Your task to perform on an android device: toggle improve location accuracy Image 0: 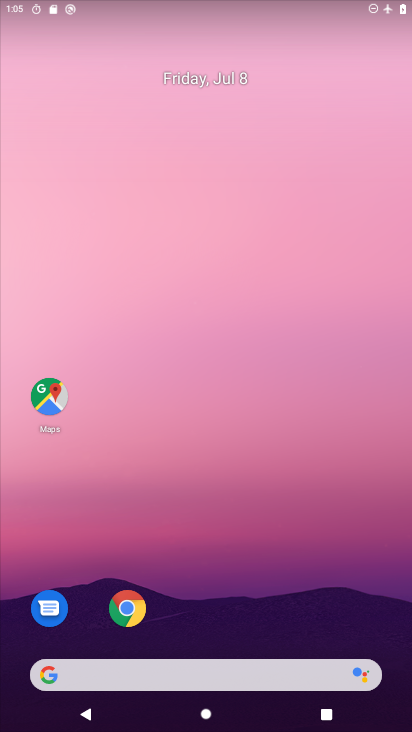
Step 0: drag from (240, 680) to (234, 60)
Your task to perform on an android device: toggle improve location accuracy Image 1: 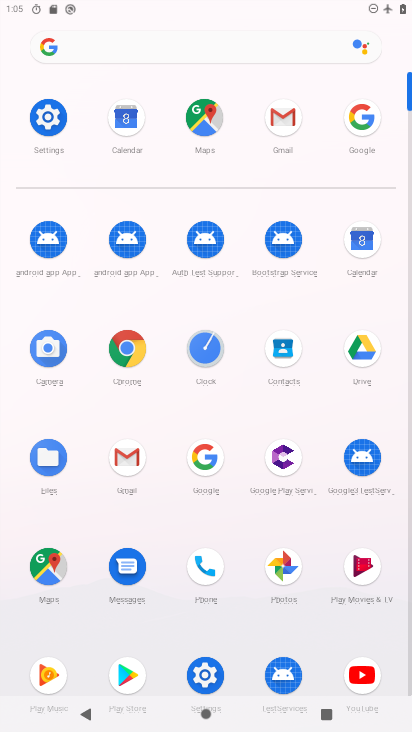
Step 1: click (51, 118)
Your task to perform on an android device: toggle improve location accuracy Image 2: 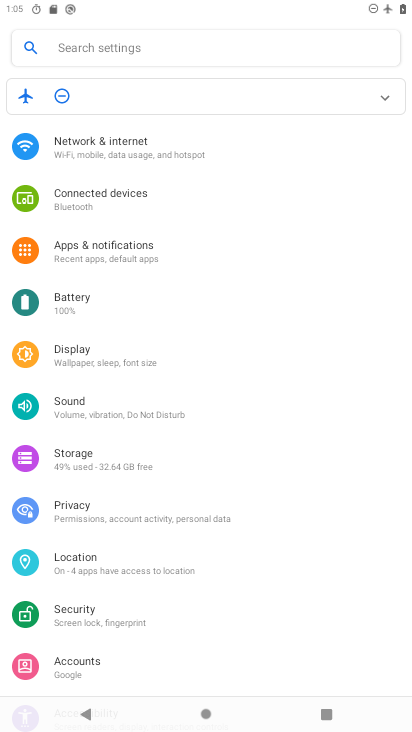
Step 2: click (94, 560)
Your task to perform on an android device: toggle improve location accuracy Image 3: 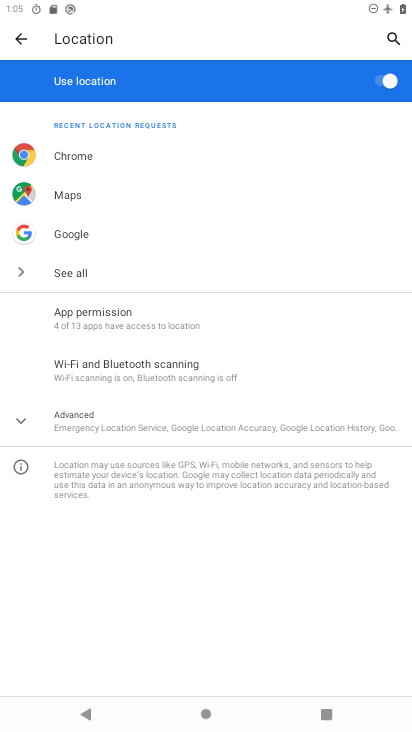
Step 3: click (98, 416)
Your task to perform on an android device: toggle improve location accuracy Image 4: 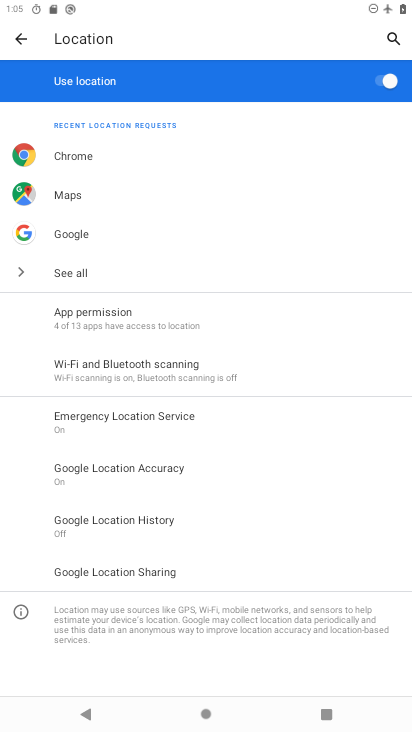
Step 4: click (121, 461)
Your task to perform on an android device: toggle improve location accuracy Image 5: 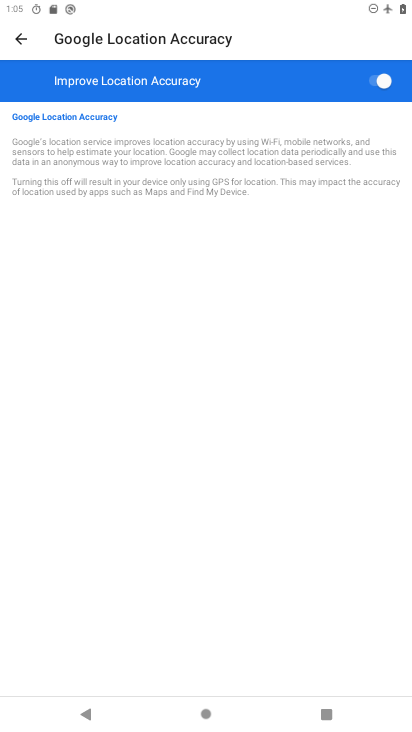
Step 5: click (375, 79)
Your task to perform on an android device: toggle improve location accuracy Image 6: 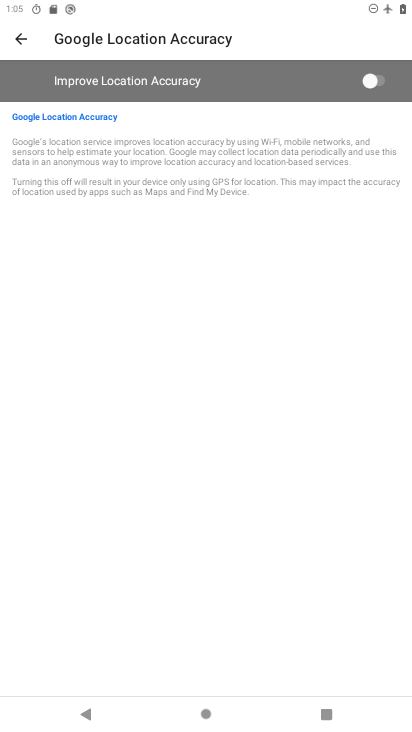
Step 6: task complete